Your task to perform on an android device: install app "Life360: Find Family & Friends" Image 0: 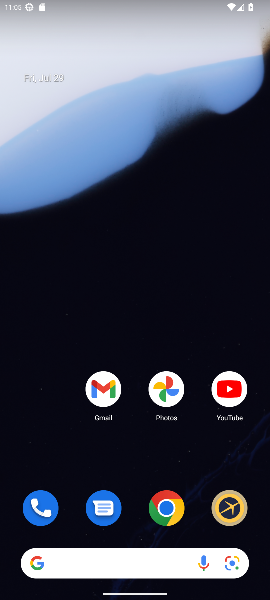
Step 0: drag from (208, 533) to (234, 141)
Your task to perform on an android device: install app "Life360: Find Family & Friends" Image 1: 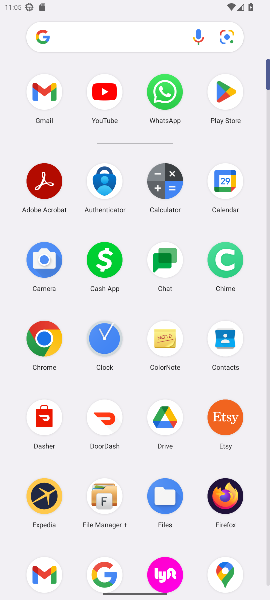
Step 1: click (234, 94)
Your task to perform on an android device: install app "Life360: Find Family & Friends" Image 2: 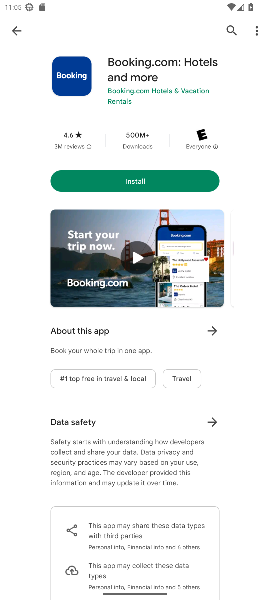
Step 2: click (231, 27)
Your task to perform on an android device: install app "Life360: Find Family & Friends" Image 3: 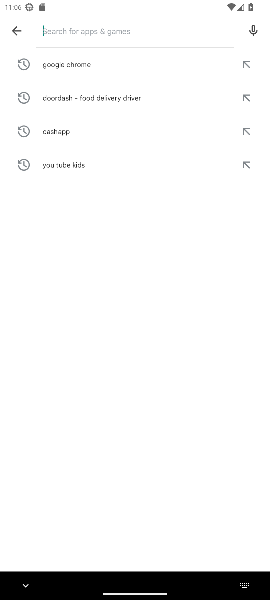
Step 3: type "life360: find family & friends"
Your task to perform on an android device: install app "Life360: Find Family & Friends" Image 4: 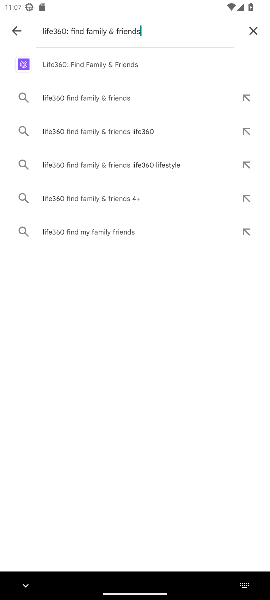
Step 4: click (132, 64)
Your task to perform on an android device: install app "Life360: Find Family & Friends" Image 5: 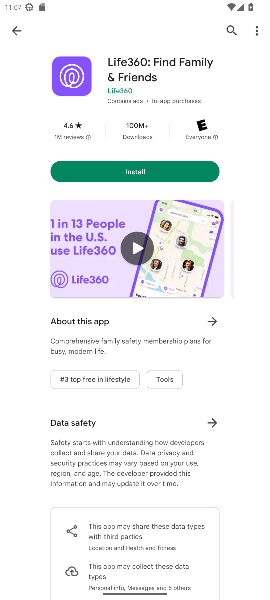
Step 5: click (150, 173)
Your task to perform on an android device: install app "Life360: Find Family & Friends" Image 6: 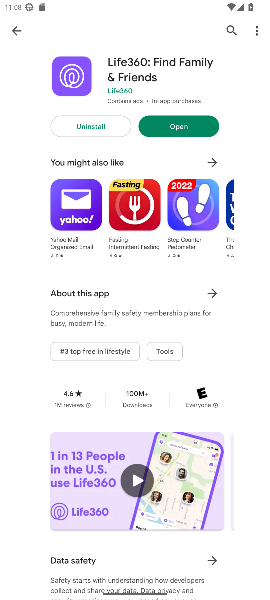
Step 6: task complete